Your task to perform on an android device: Go to accessibility settings Image 0: 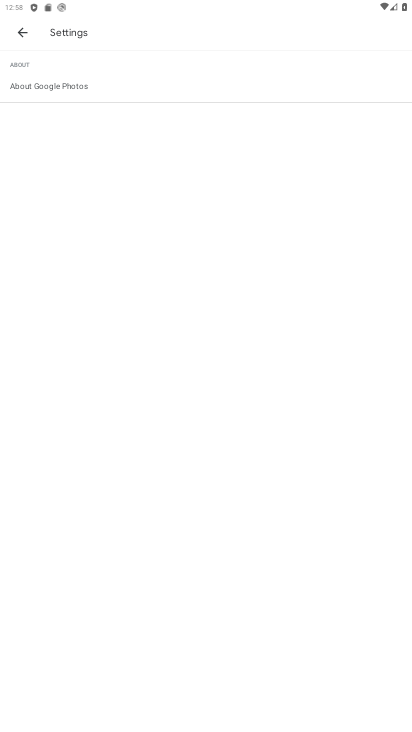
Step 0: press home button
Your task to perform on an android device: Go to accessibility settings Image 1: 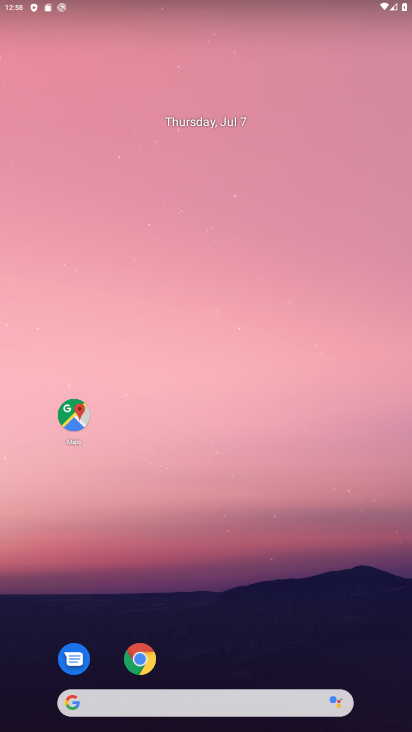
Step 1: drag from (235, 638) to (213, 221)
Your task to perform on an android device: Go to accessibility settings Image 2: 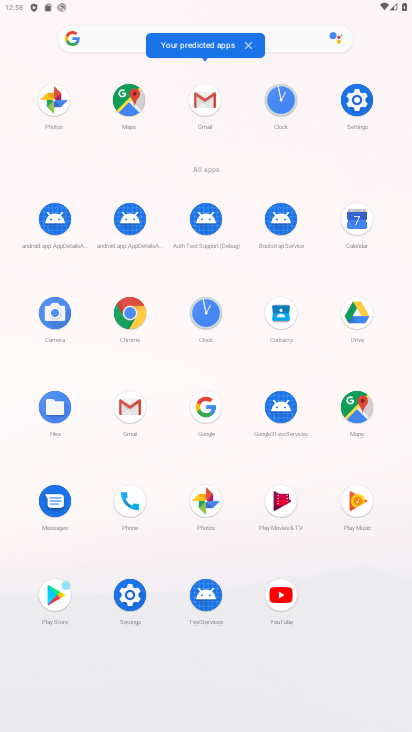
Step 2: click (363, 102)
Your task to perform on an android device: Go to accessibility settings Image 3: 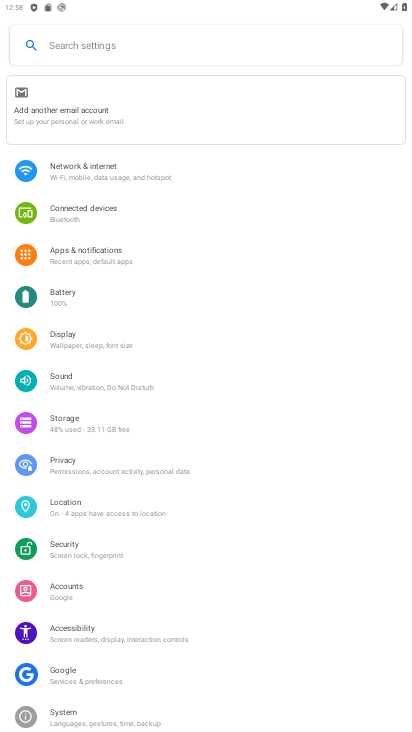
Step 3: click (98, 636)
Your task to perform on an android device: Go to accessibility settings Image 4: 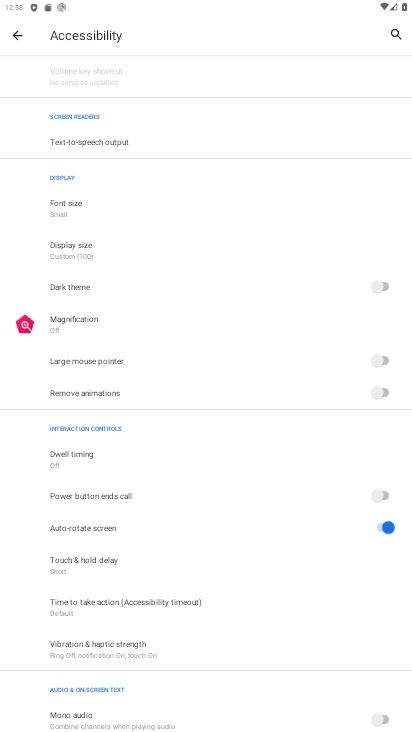
Step 4: task complete